Your task to perform on an android device: turn off wifi Image 0: 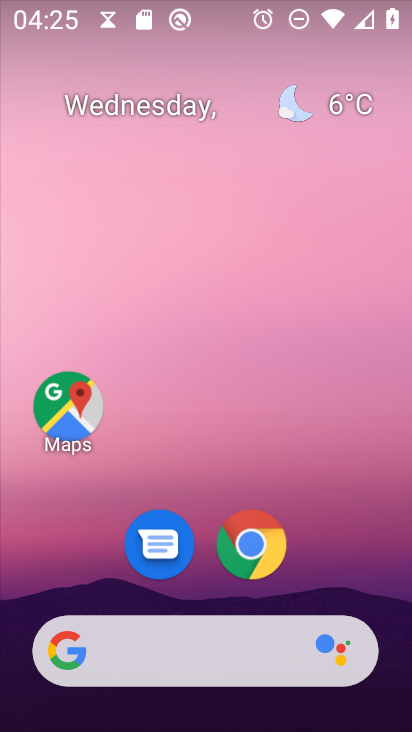
Step 0: drag from (340, 588) to (327, 114)
Your task to perform on an android device: turn off wifi Image 1: 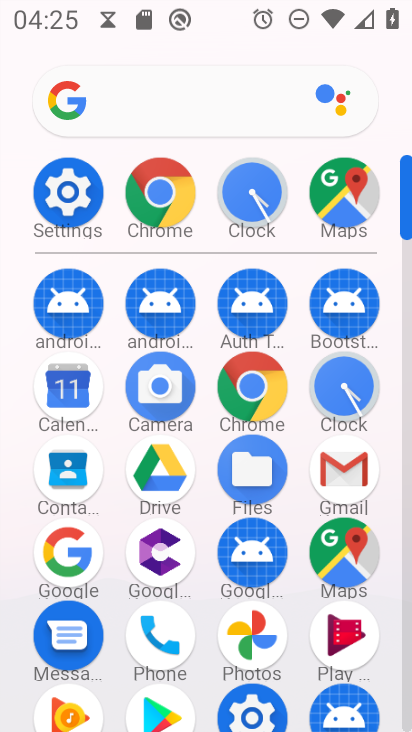
Step 1: click (75, 189)
Your task to perform on an android device: turn off wifi Image 2: 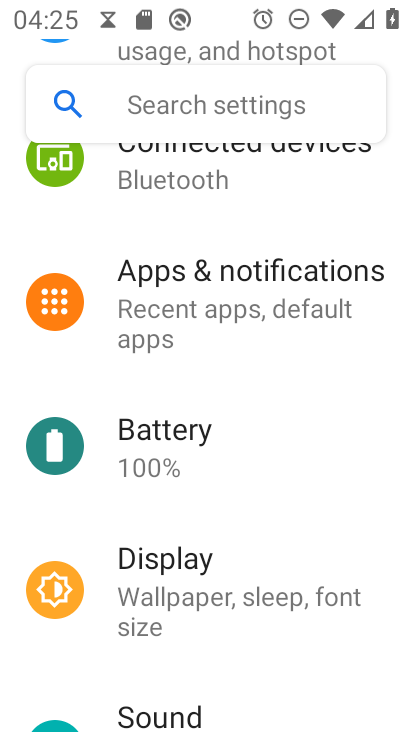
Step 2: drag from (151, 263) to (153, 585)
Your task to perform on an android device: turn off wifi Image 3: 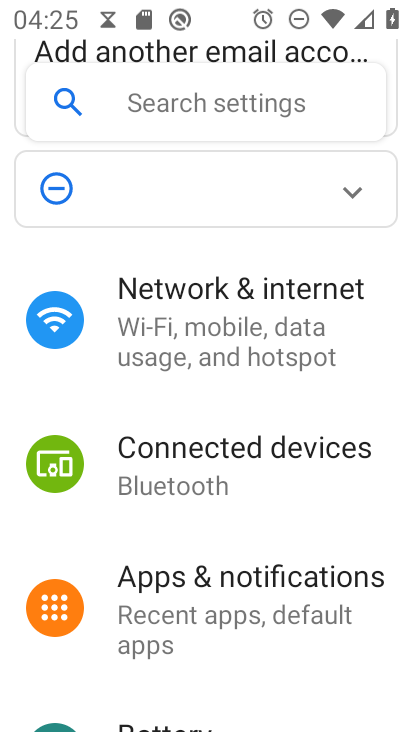
Step 3: click (245, 308)
Your task to perform on an android device: turn off wifi Image 4: 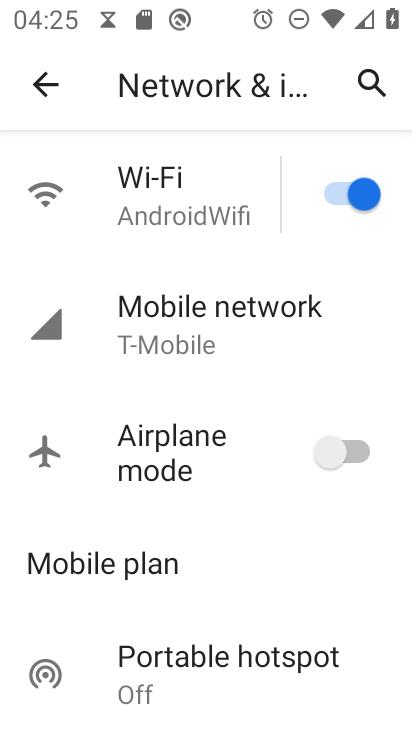
Step 4: click (336, 185)
Your task to perform on an android device: turn off wifi Image 5: 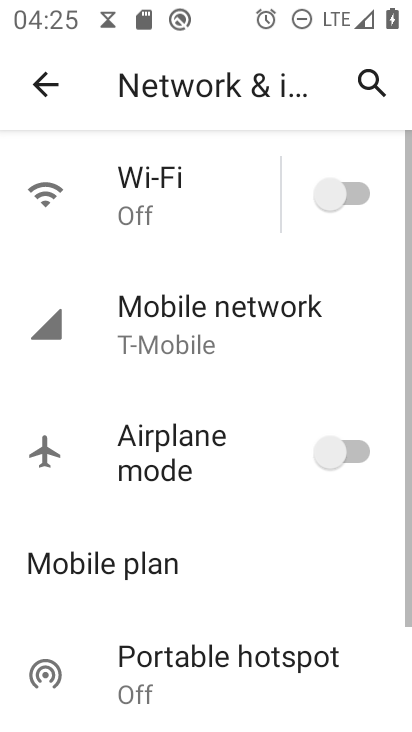
Step 5: task complete